Your task to perform on an android device: Open Android settings Image 0: 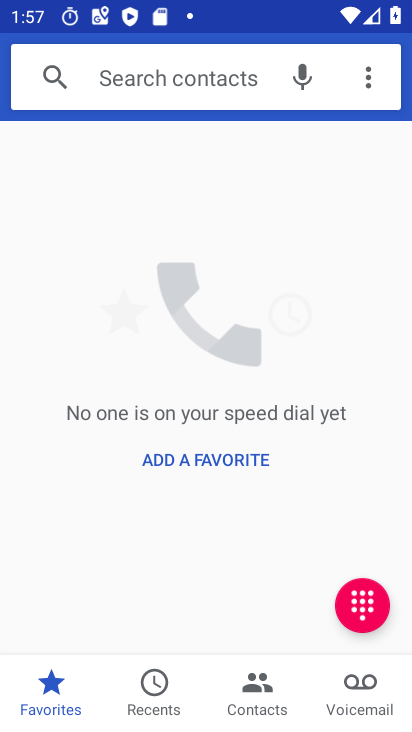
Step 0: press home button
Your task to perform on an android device: Open Android settings Image 1: 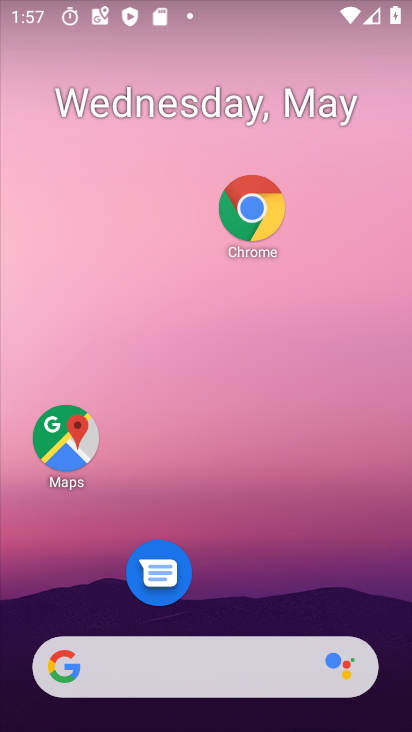
Step 1: drag from (217, 611) to (262, 37)
Your task to perform on an android device: Open Android settings Image 2: 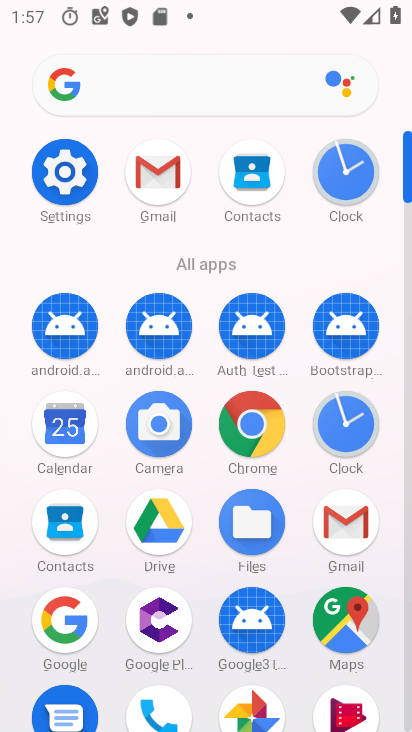
Step 2: click (81, 165)
Your task to perform on an android device: Open Android settings Image 3: 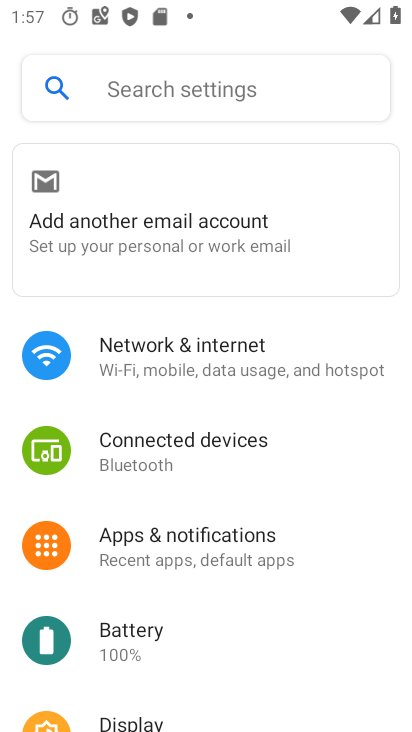
Step 3: task complete